Your task to perform on an android device: move an email to a new category in the gmail app Image 0: 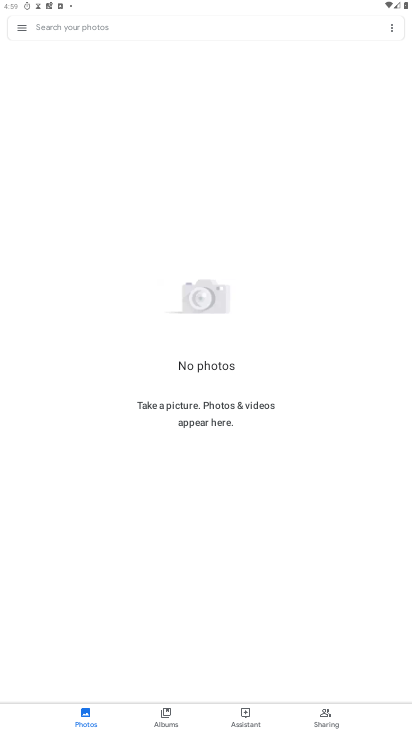
Step 0: drag from (287, 703) to (326, 4)
Your task to perform on an android device: move an email to a new category in the gmail app Image 1: 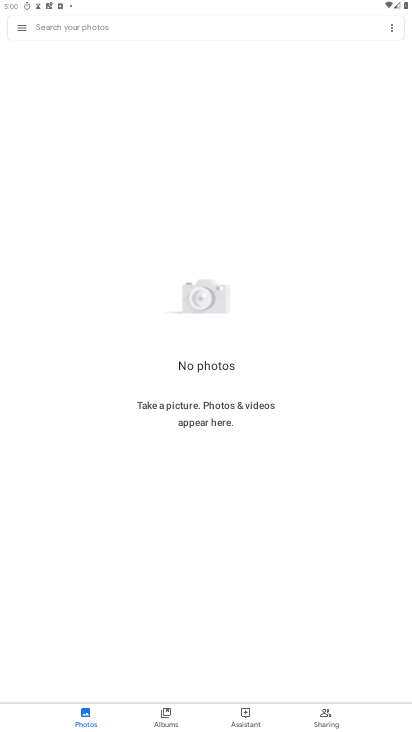
Step 1: press home button
Your task to perform on an android device: move an email to a new category in the gmail app Image 2: 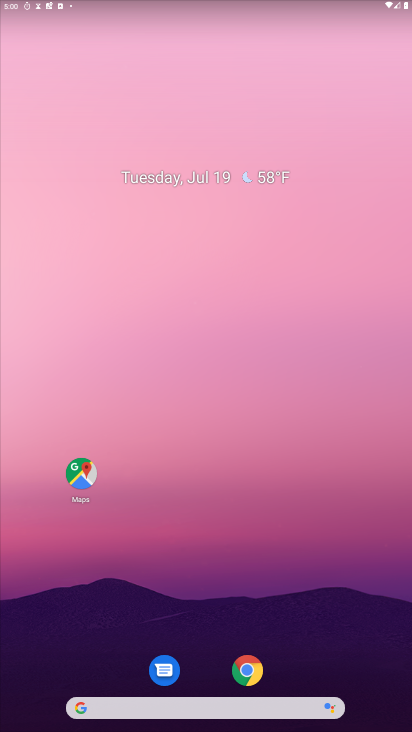
Step 2: drag from (282, 655) to (275, 12)
Your task to perform on an android device: move an email to a new category in the gmail app Image 3: 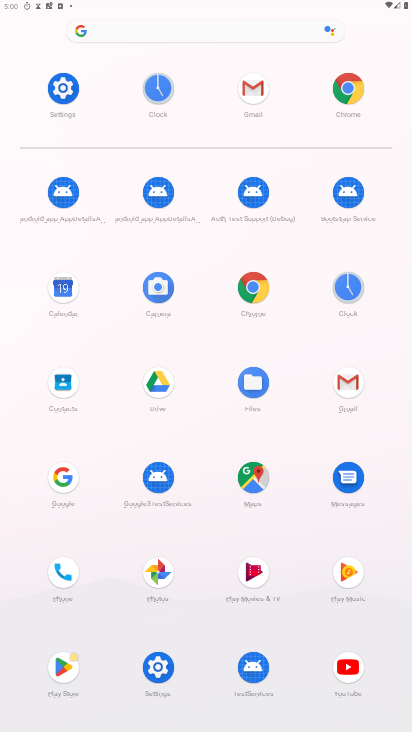
Step 3: click (356, 377)
Your task to perform on an android device: move an email to a new category in the gmail app Image 4: 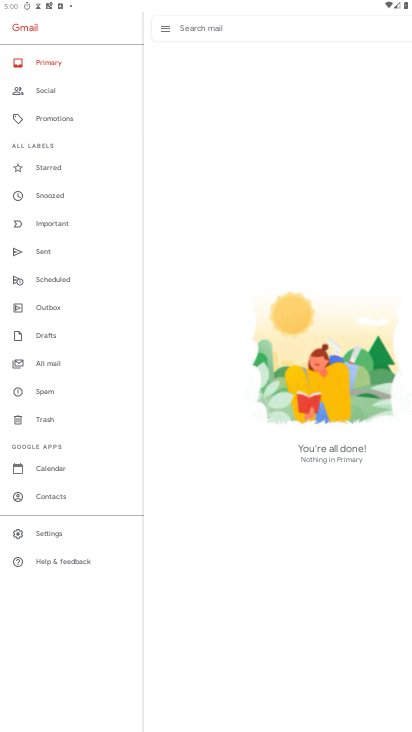
Step 4: task complete